Your task to perform on an android device: Go to display settings Image 0: 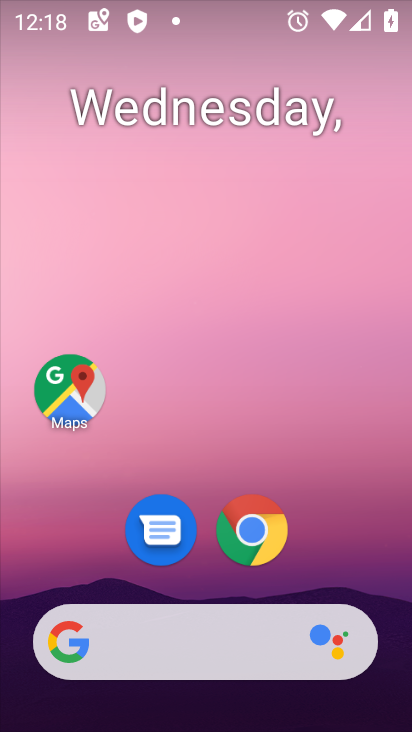
Step 0: drag from (239, 557) to (354, 151)
Your task to perform on an android device: Go to display settings Image 1: 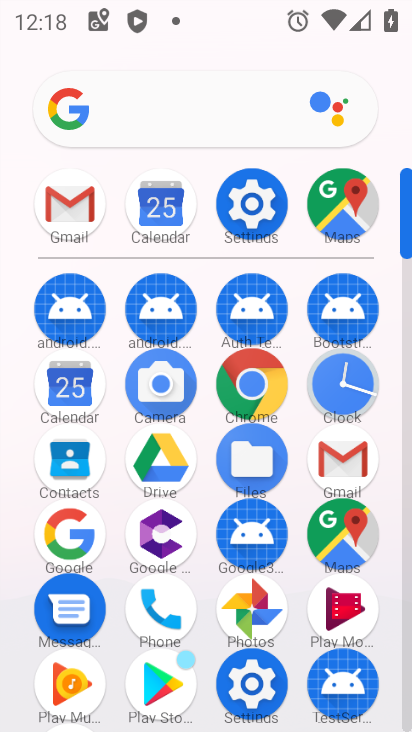
Step 1: click (249, 206)
Your task to perform on an android device: Go to display settings Image 2: 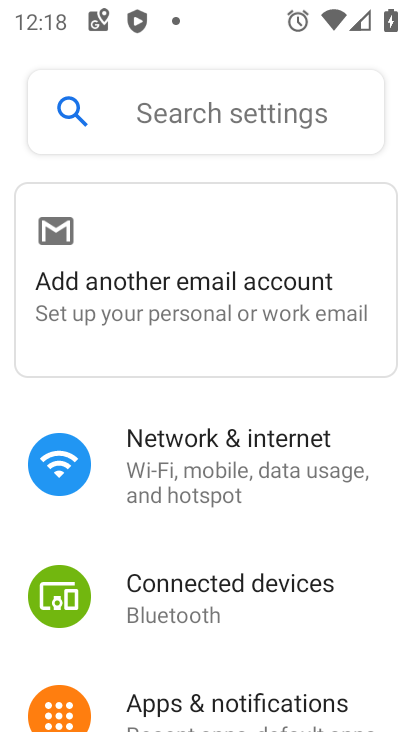
Step 2: drag from (205, 531) to (280, 247)
Your task to perform on an android device: Go to display settings Image 3: 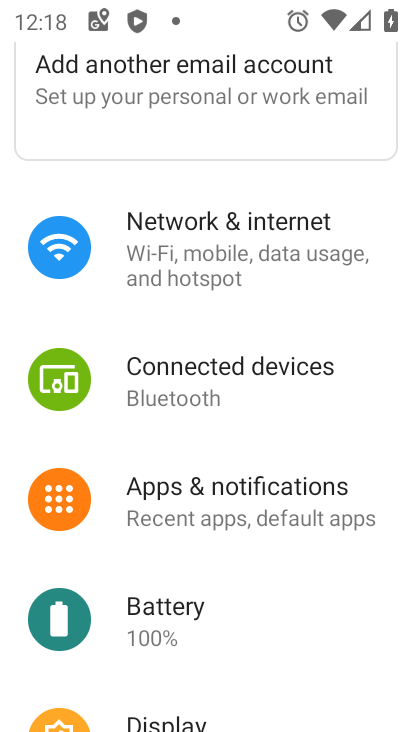
Step 3: drag from (234, 641) to (349, 284)
Your task to perform on an android device: Go to display settings Image 4: 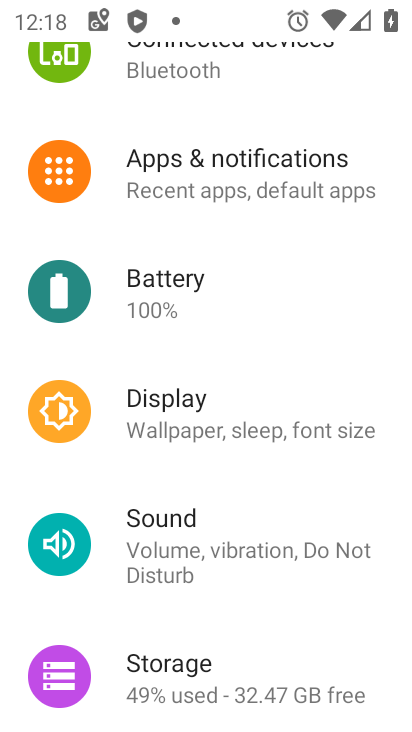
Step 4: click (227, 422)
Your task to perform on an android device: Go to display settings Image 5: 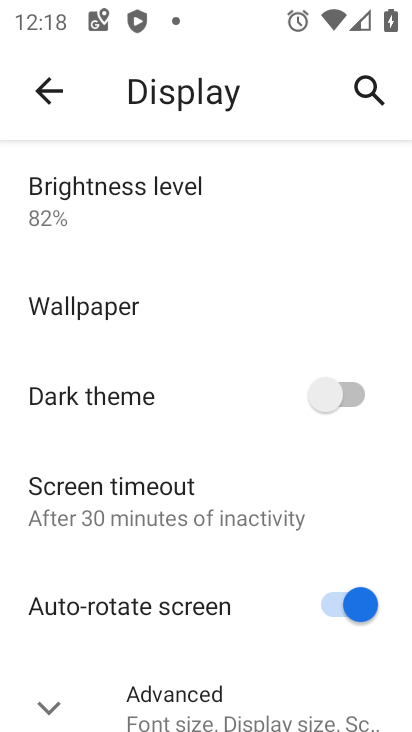
Step 5: task complete